Your task to perform on an android device: toggle data saver in the chrome app Image 0: 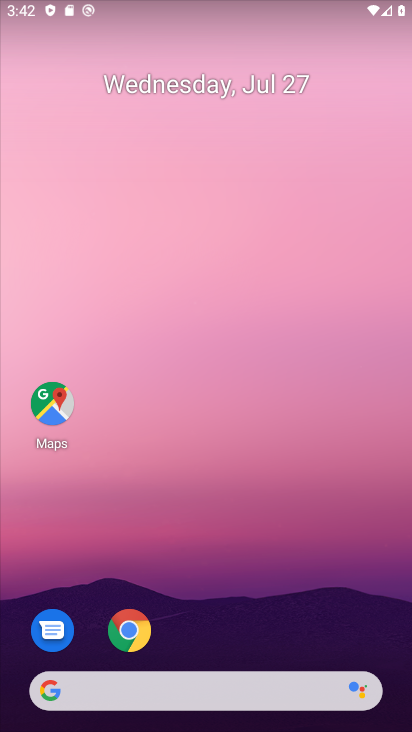
Step 0: press home button
Your task to perform on an android device: toggle data saver in the chrome app Image 1: 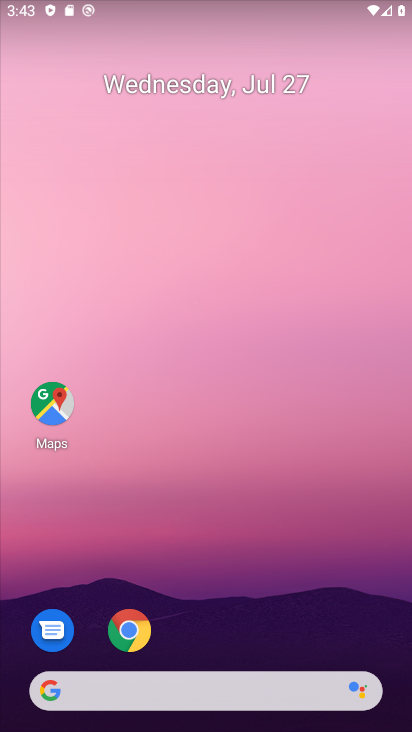
Step 1: click (131, 628)
Your task to perform on an android device: toggle data saver in the chrome app Image 2: 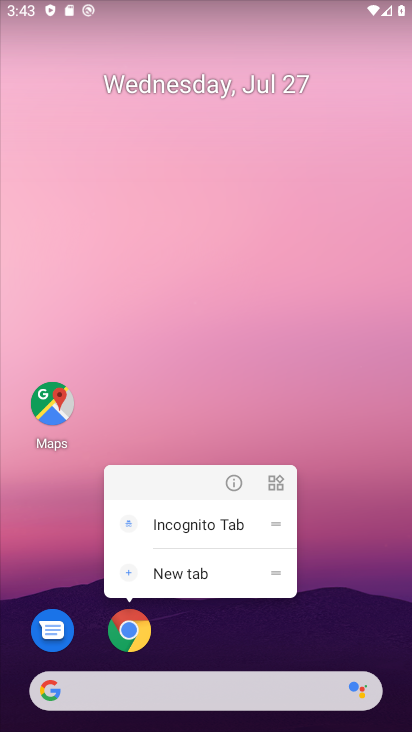
Step 2: click (126, 622)
Your task to perform on an android device: toggle data saver in the chrome app Image 3: 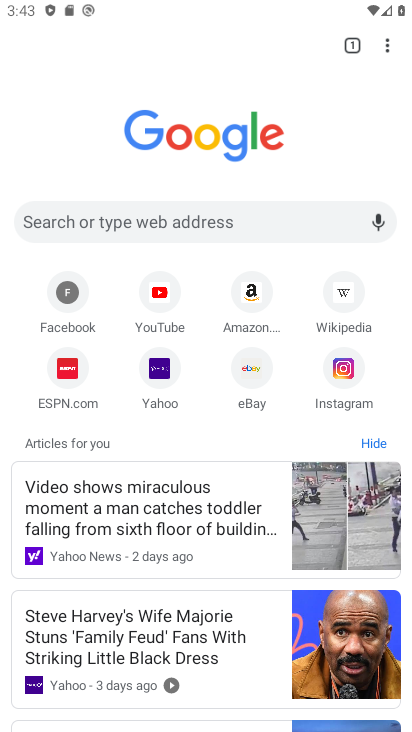
Step 3: click (383, 45)
Your task to perform on an android device: toggle data saver in the chrome app Image 4: 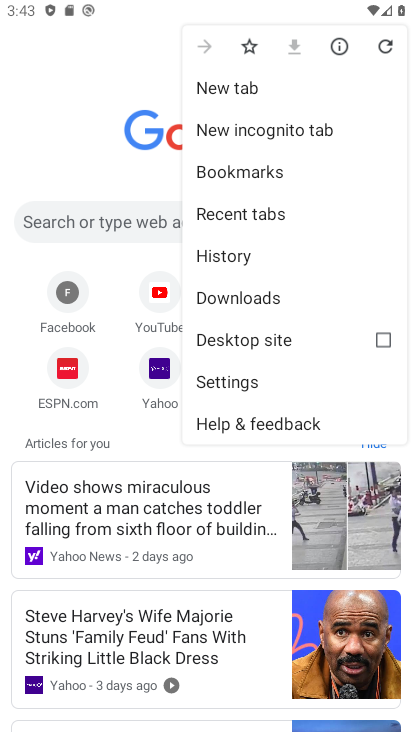
Step 4: click (257, 380)
Your task to perform on an android device: toggle data saver in the chrome app Image 5: 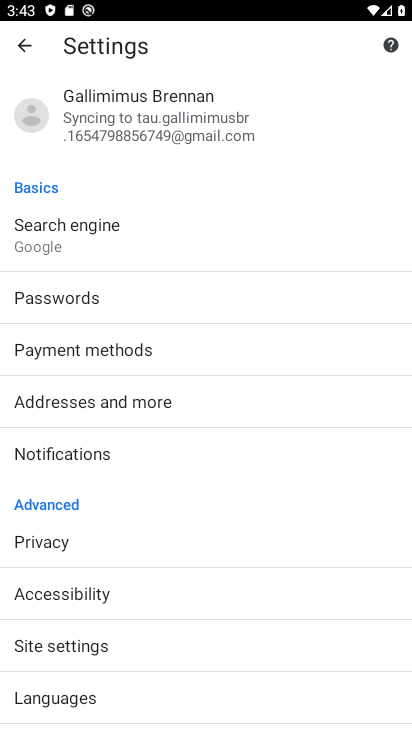
Step 5: drag from (141, 662) to (169, 230)
Your task to perform on an android device: toggle data saver in the chrome app Image 6: 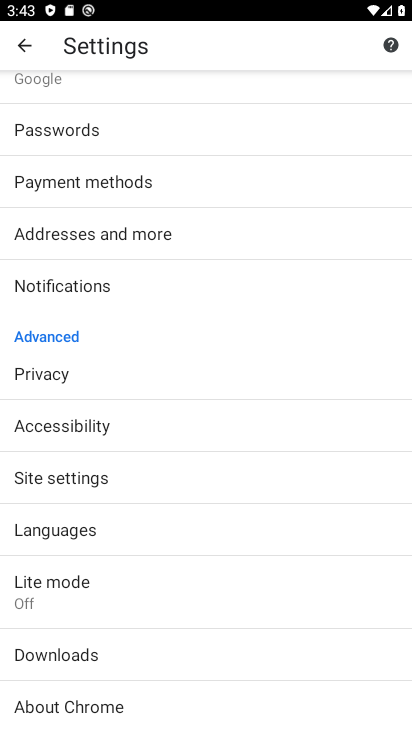
Step 6: click (85, 597)
Your task to perform on an android device: toggle data saver in the chrome app Image 7: 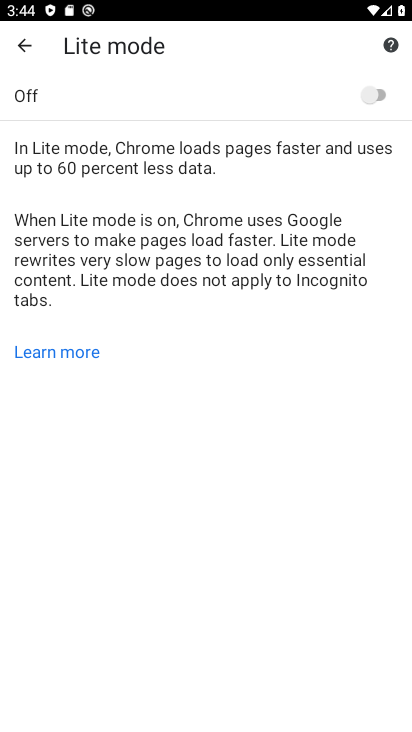
Step 7: click (383, 97)
Your task to perform on an android device: toggle data saver in the chrome app Image 8: 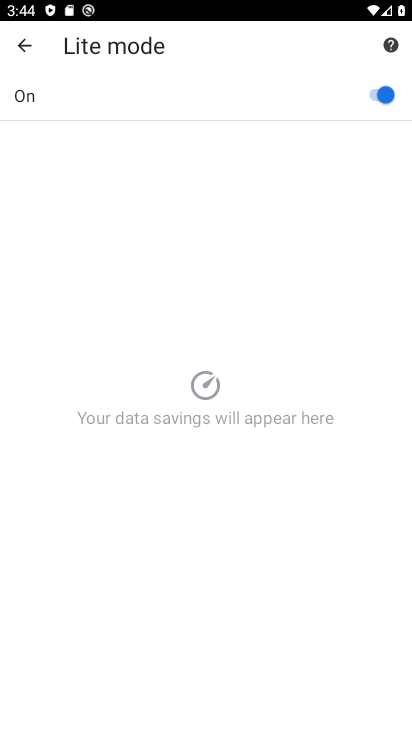
Step 8: task complete